Your task to perform on an android device: Go to notification settings Image 0: 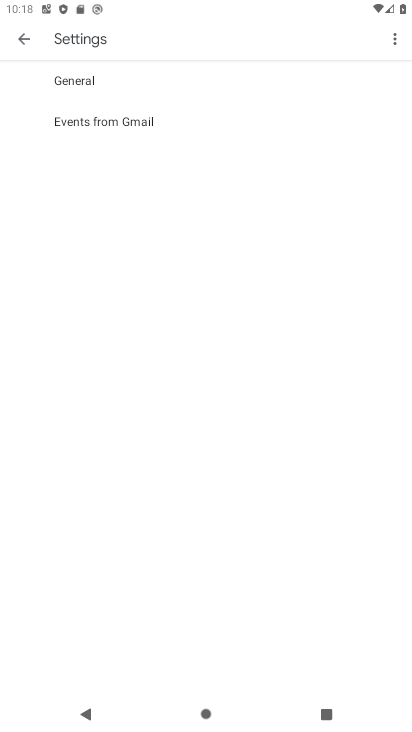
Step 0: press home button
Your task to perform on an android device: Go to notification settings Image 1: 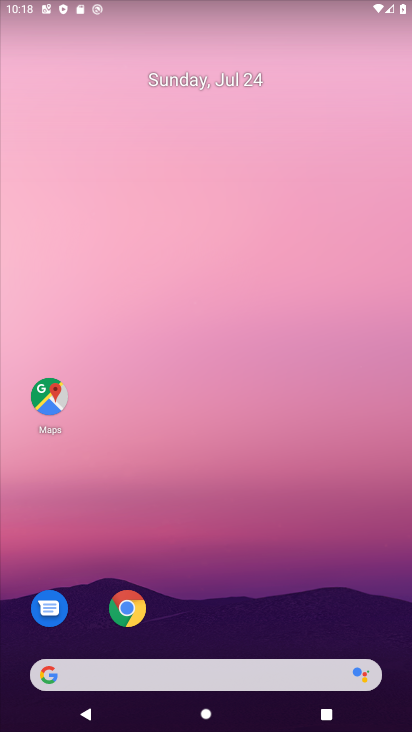
Step 1: drag from (273, 624) to (124, 9)
Your task to perform on an android device: Go to notification settings Image 2: 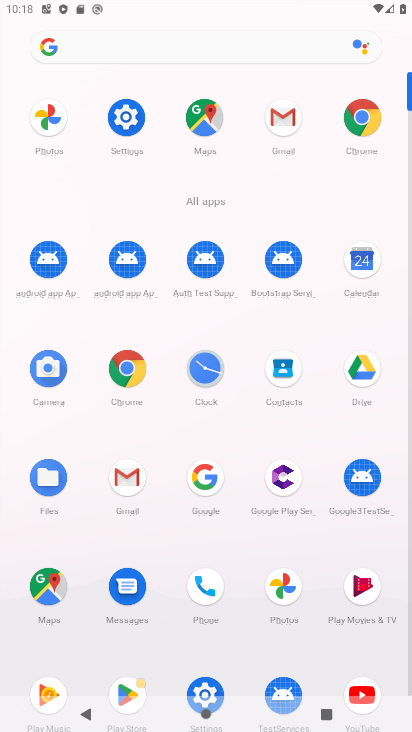
Step 2: click (127, 120)
Your task to perform on an android device: Go to notification settings Image 3: 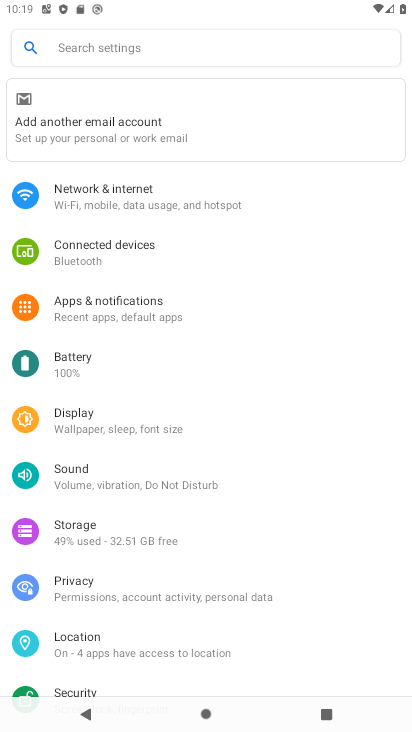
Step 3: click (108, 307)
Your task to perform on an android device: Go to notification settings Image 4: 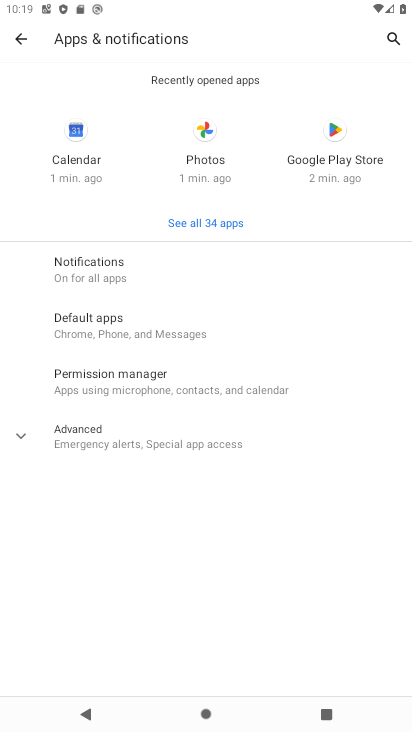
Step 4: click (182, 257)
Your task to perform on an android device: Go to notification settings Image 5: 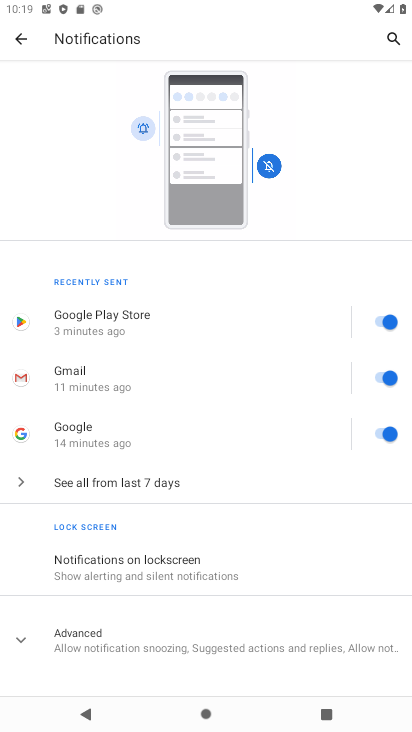
Step 5: task complete